Your task to perform on an android device: Go to Google Image 0: 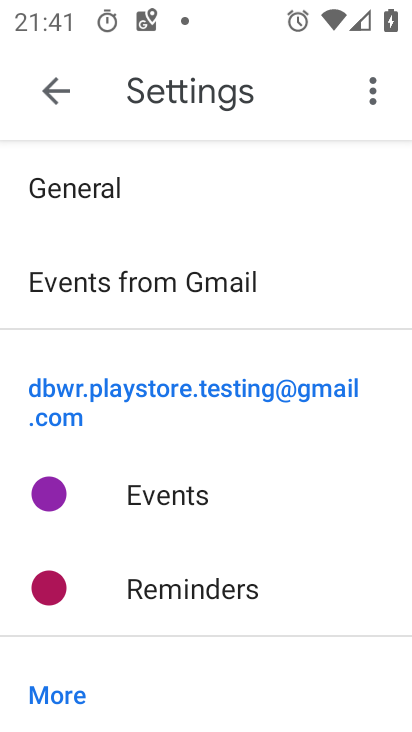
Step 0: press home button
Your task to perform on an android device: Go to Google Image 1: 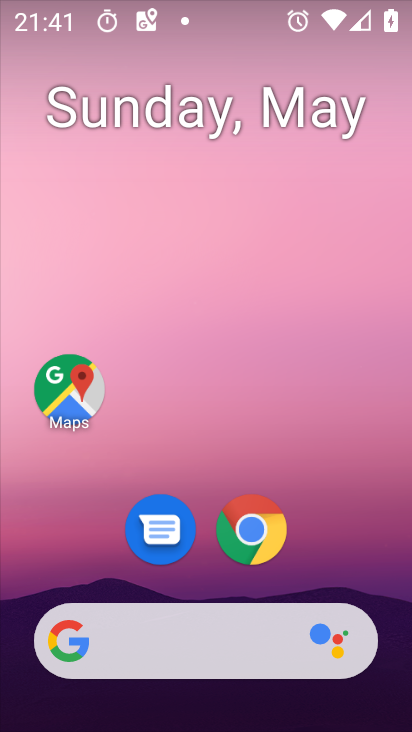
Step 1: drag from (361, 569) to (310, 25)
Your task to perform on an android device: Go to Google Image 2: 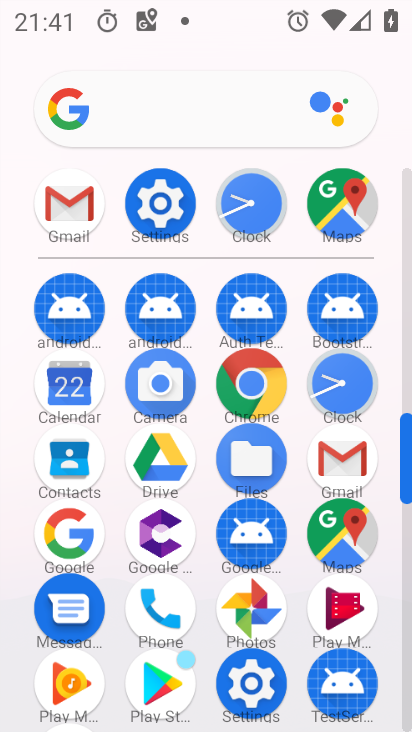
Step 2: click (71, 539)
Your task to perform on an android device: Go to Google Image 3: 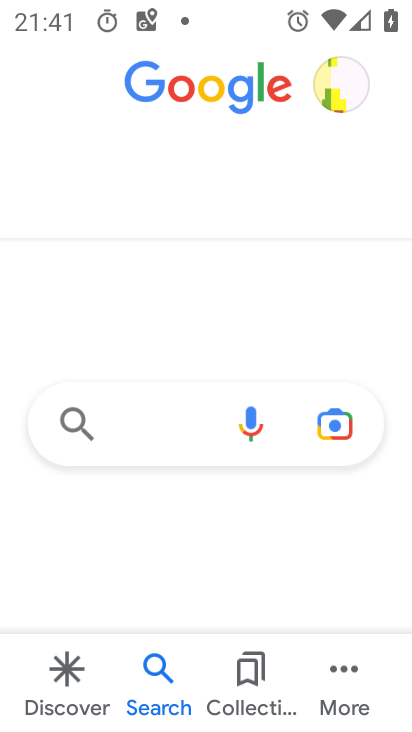
Step 3: task complete